Your task to perform on an android device: empty trash in google photos Image 0: 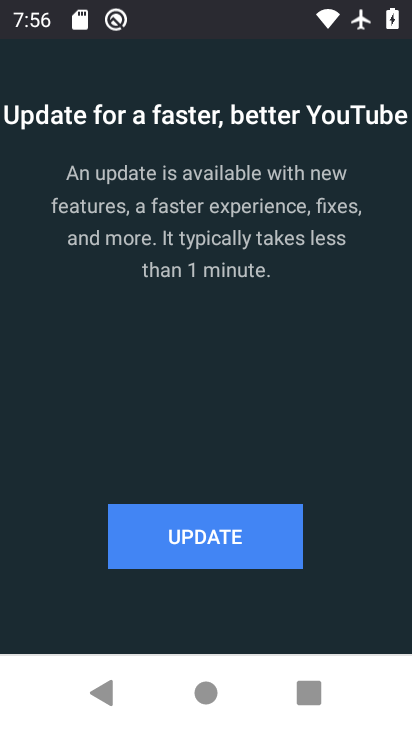
Step 0: press home button
Your task to perform on an android device: empty trash in google photos Image 1: 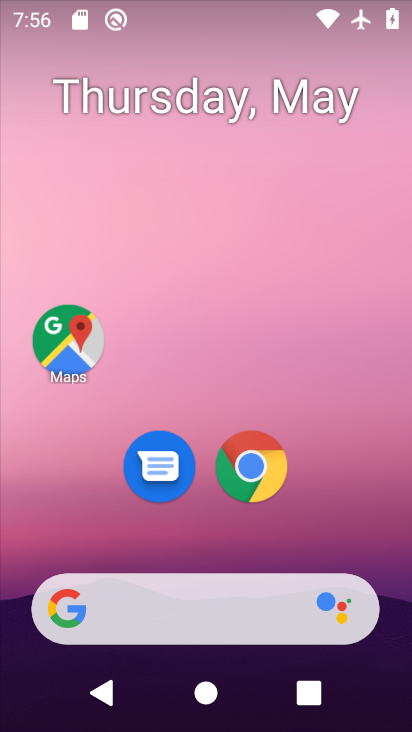
Step 1: drag from (365, 488) to (358, 109)
Your task to perform on an android device: empty trash in google photos Image 2: 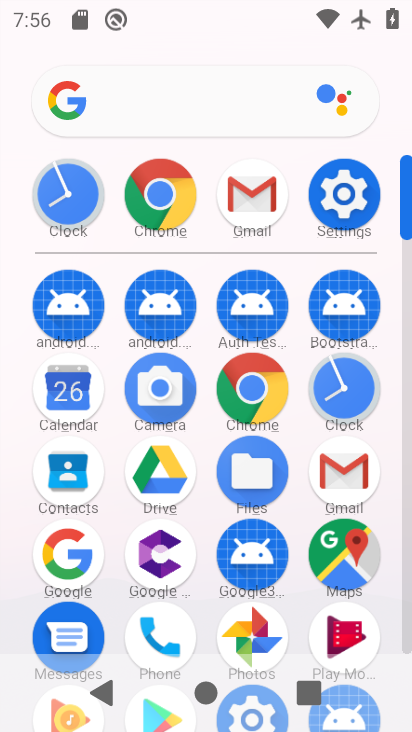
Step 2: click (230, 628)
Your task to perform on an android device: empty trash in google photos Image 3: 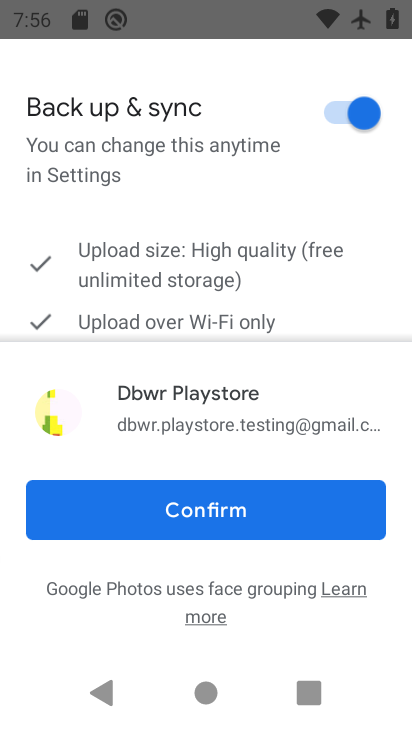
Step 3: click (184, 514)
Your task to perform on an android device: empty trash in google photos Image 4: 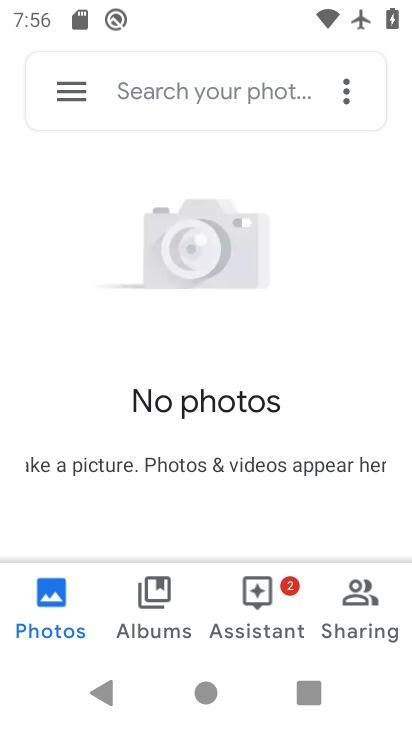
Step 4: click (73, 109)
Your task to perform on an android device: empty trash in google photos Image 5: 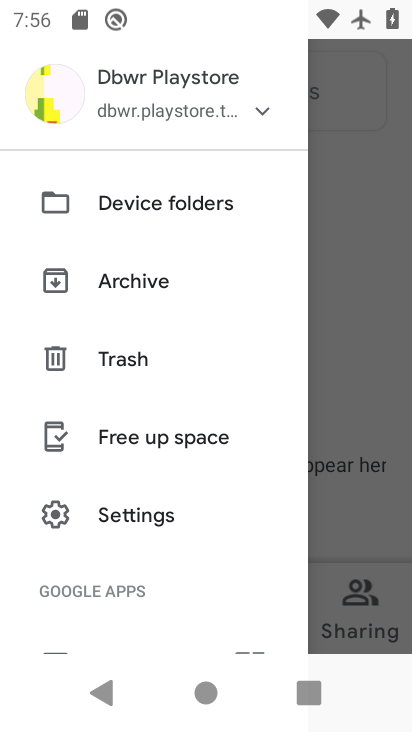
Step 5: click (104, 357)
Your task to perform on an android device: empty trash in google photos Image 6: 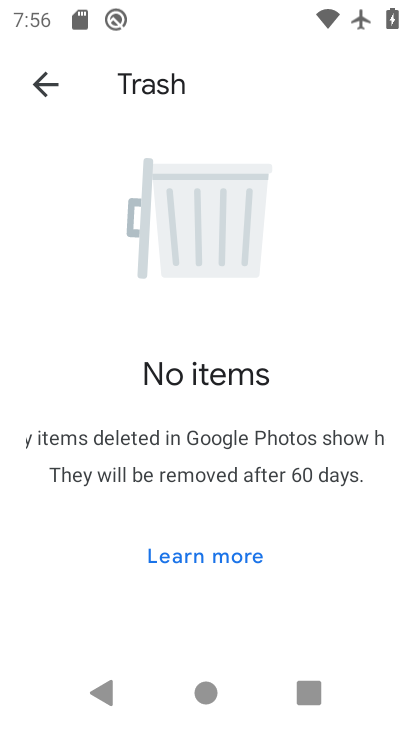
Step 6: task complete